Your task to perform on an android device: Open calendar and show me the third week of next month Image 0: 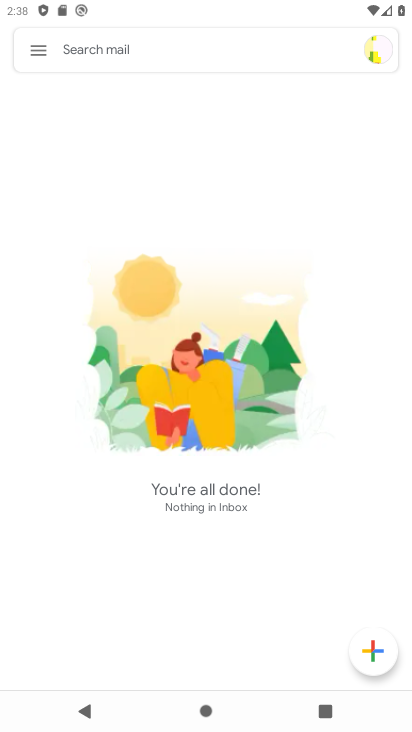
Step 0: press home button
Your task to perform on an android device: Open calendar and show me the third week of next month Image 1: 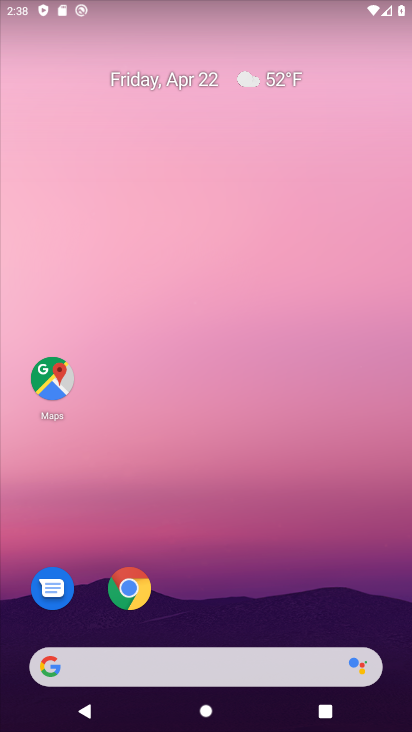
Step 1: drag from (359, 601) to (321, 17)
Your task to perform on an android device: Open calendar and show me the third week of next month Image 2: 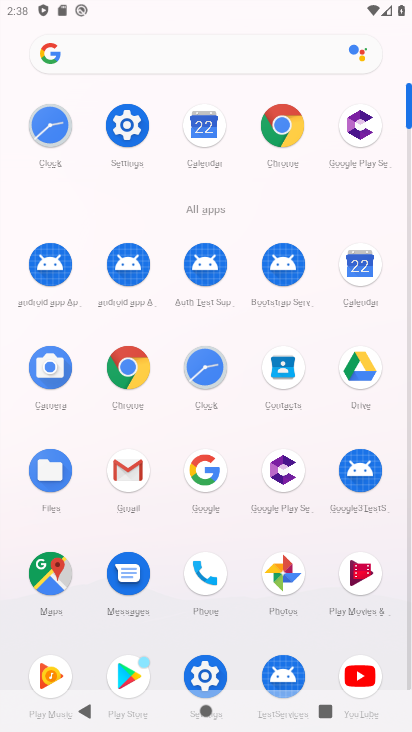
Step 2: click (198, 127)
Your task to perform on an android device: Open calendar and show me the third week of next month Image 3: 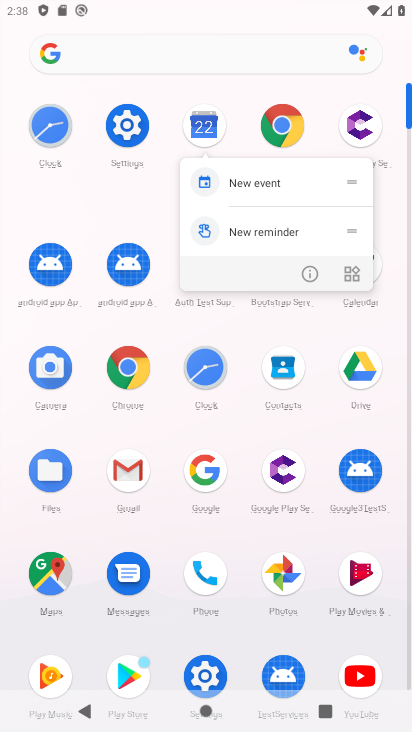
Step 3: click (198, 125)
Your task to perform on an android device: Open calendar and show me the third week of next month Image 4: 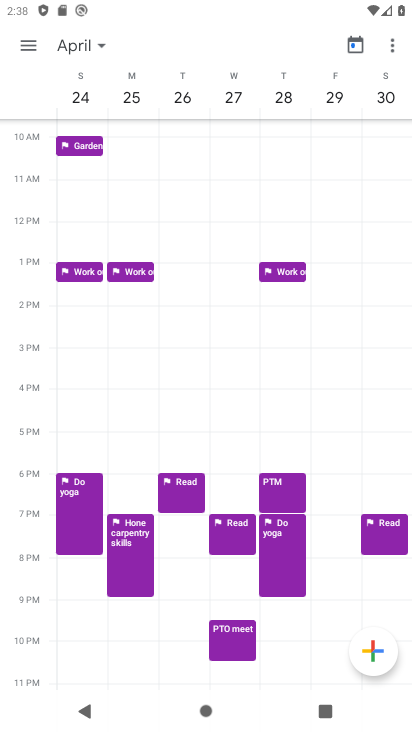
Step 4: click (104, 49)
Your task to perform on an android device: Open calendar and show me the third week of next month Image 5: 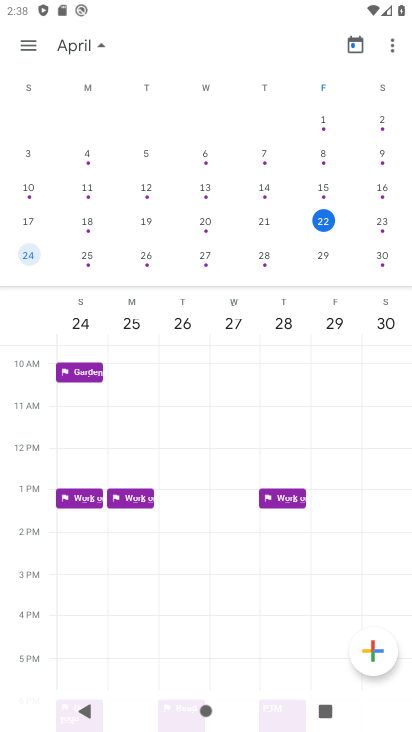
Step 5: task complete